Your task to perform on an android device: create a new album in the google photos Image 0: 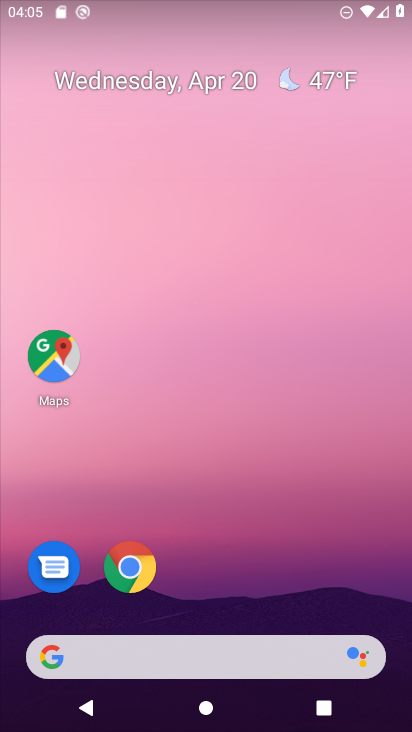
Step 0: drag from (239, 540) to (289, 60)
Your task to perform on an android device: create a new album in the google photos Image 1: 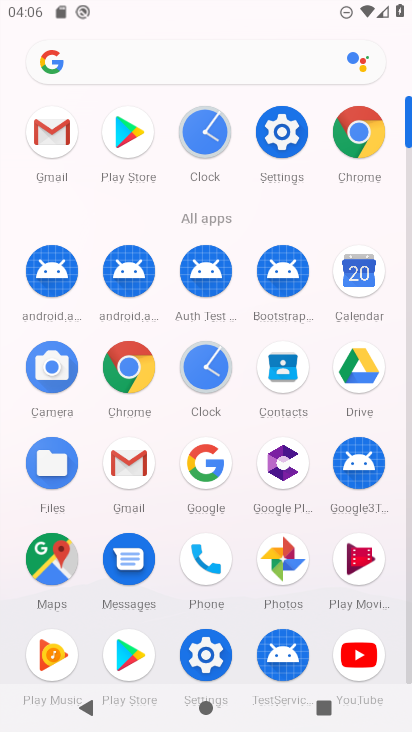
Step 1: click (277, 573)
Your task to perform on an android device: create a new album in the google photos Image 2: 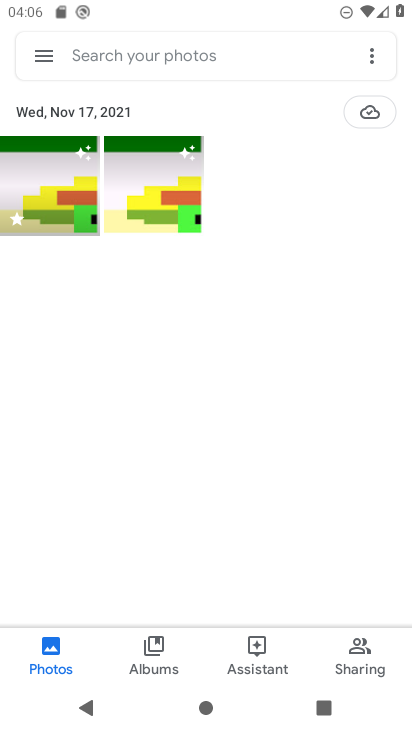
Step 2: click (83, 191)
Your task to perform on an android device: create a new album in the google photos Image 3: 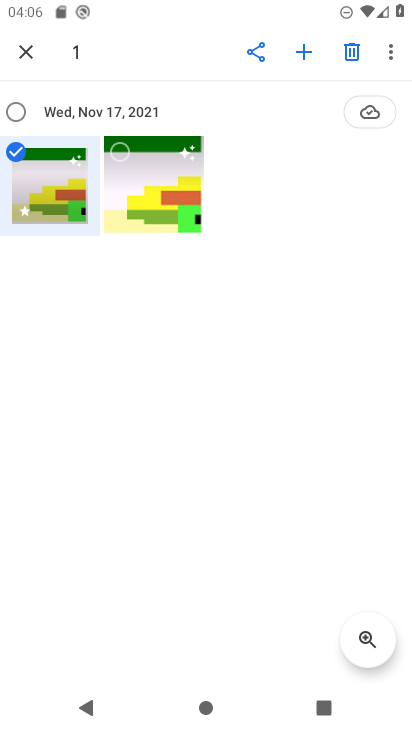
Step 3: click (120, 149)
Your task to perform on an android device: create a new album in the google photos Image 4: 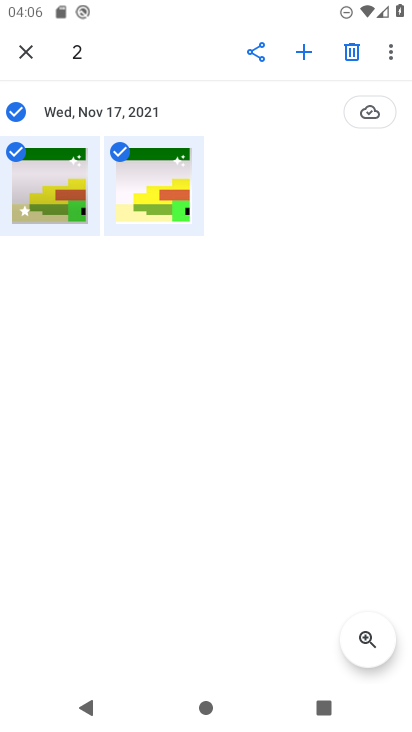
Step 4: click (301, 44)
Your task to perform on an android device: create a new album in the google photos Image 5: 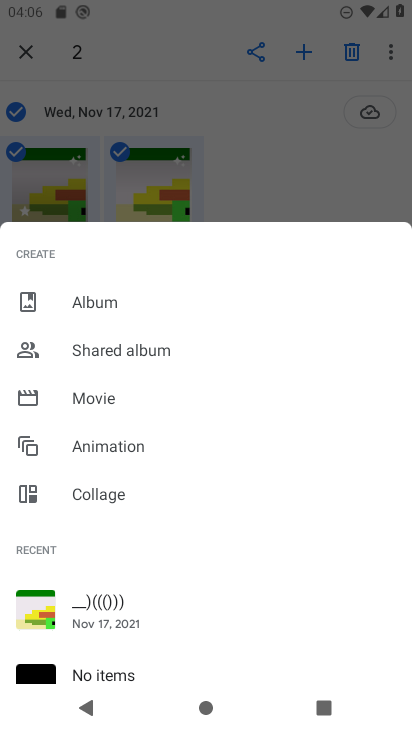
Step 5: click (86, 297)
Your task to perform on an android device: create a new album in the google photos Image 6: 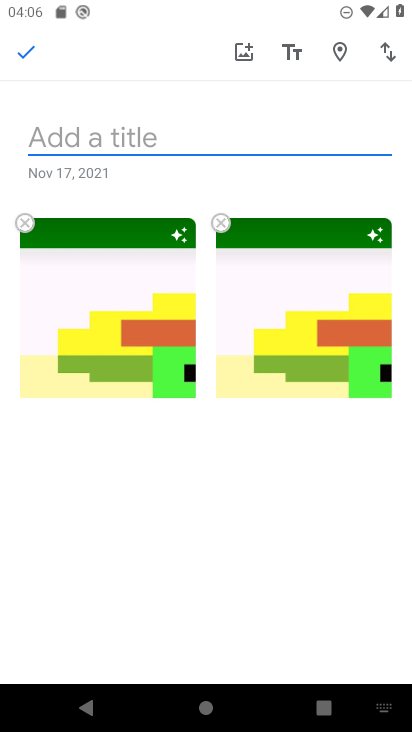
Step 6: type "el"
Your task to perform on an android device: create a new album in the google photos Image 7: 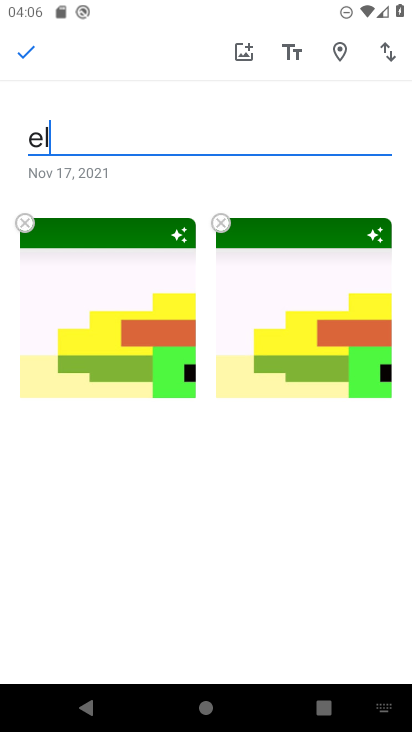
Step 7: click (20, 43)
Your task to perform on an android device: create a new album in the google photos Image 8: 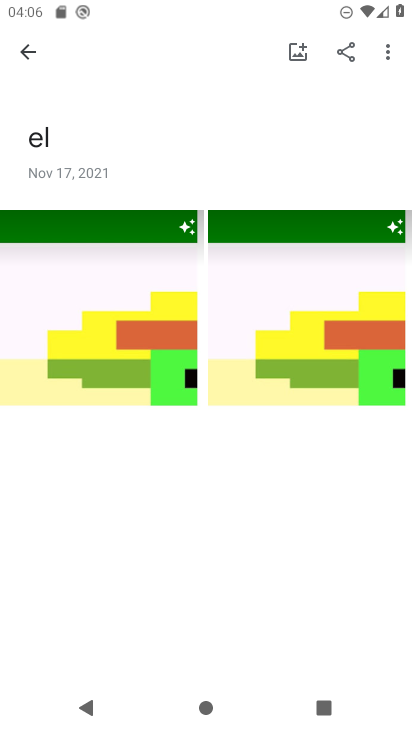
Step 8: task complete